Your task to perform on an android device: See recent photos Image 0: 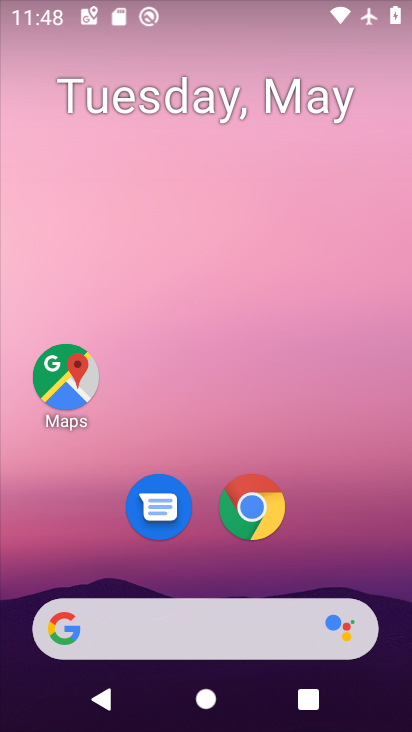
Step 0: click (225, 133)
Your task to perform on an android device: See recent photos Image 1: 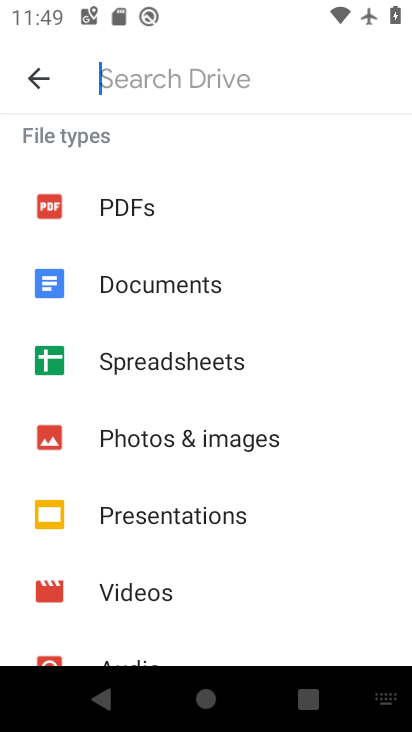
Step 1: click (35, 71)
Your task to perform on an android device: See recent photos Image 2: 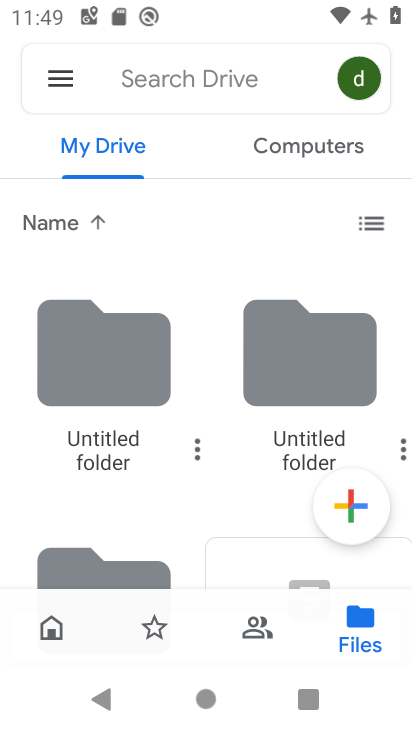
Step 2: press back button
Your task to perform on an android device: See recent photos Image 3: 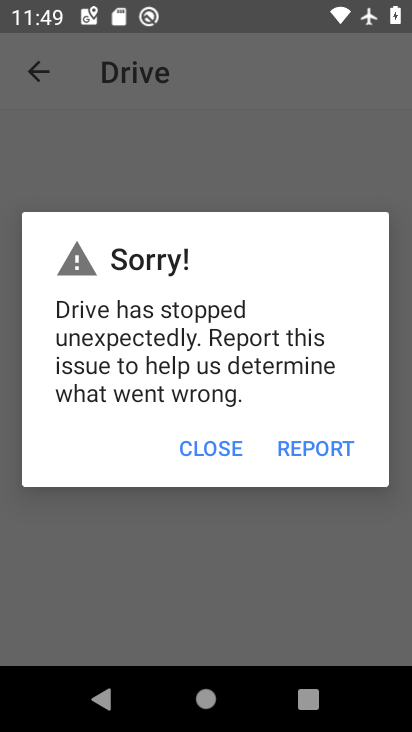
Step 3: click (215, 441)
Your task to perform on an android device: See recent photos Image 4: 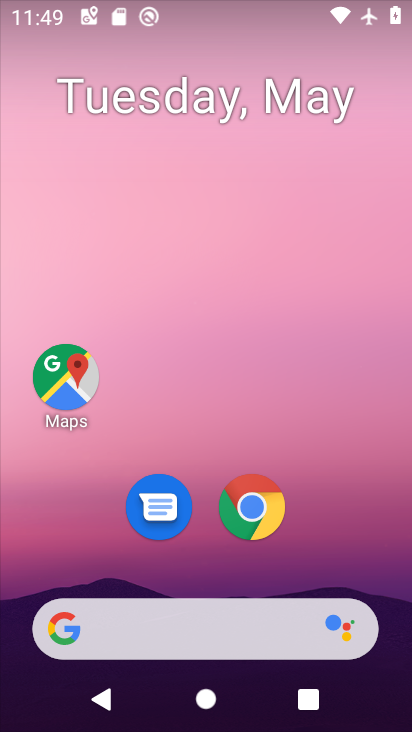
Step 4: drag from (232, 686) to (191, 49)
Your task to perform on an android device: See recent photos Image 5: 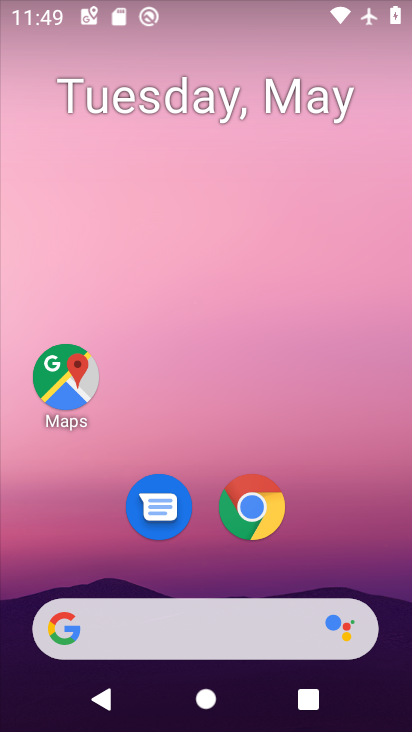
Step 5: drag from (255, 674) to (219, 107)
Your task to perform on an android device: See recent photos Image 6: 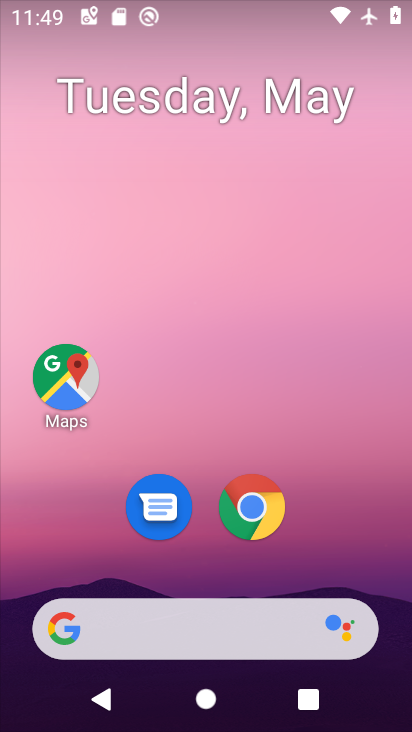
Step 6: drag from (259, 687) to (219, 121)
Your task to perform on an android device: See recent photos Image 7: 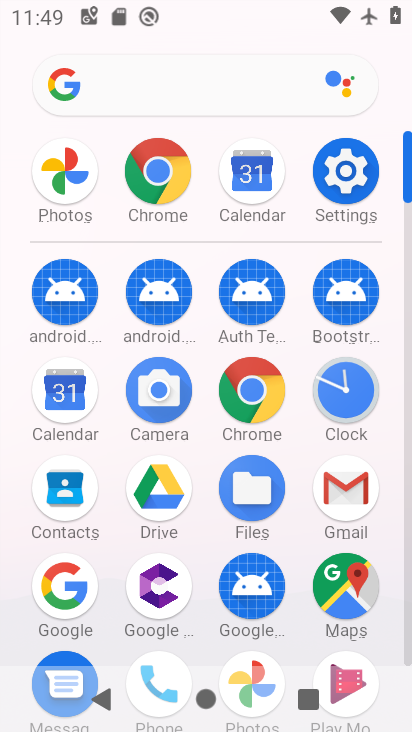
Step 7: click (58, 172)
Your task to perform on an android device: See recent photos Image 8: 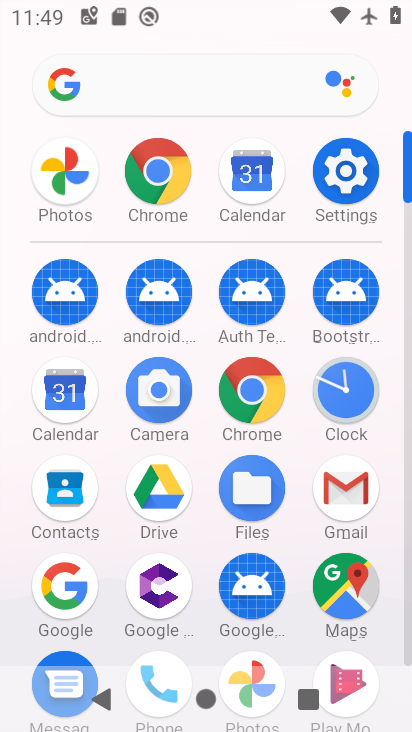
Step 8: click (61, 167)
Your task to perform on an android device: See recent photos Image 9: 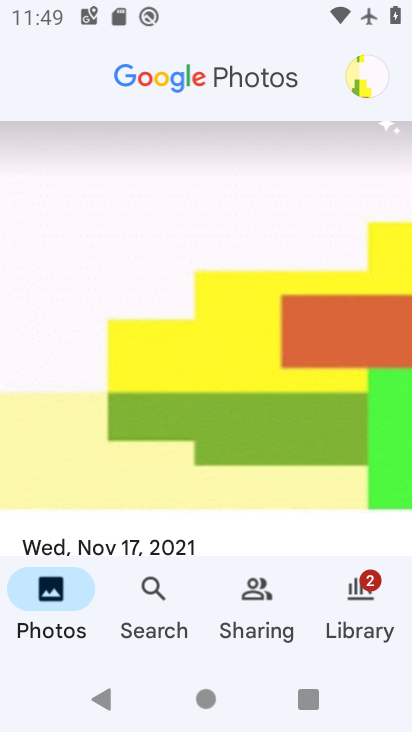
Step 9: task complete